Your task to perform on an android device: change notification settings in the gmail app Image 0: 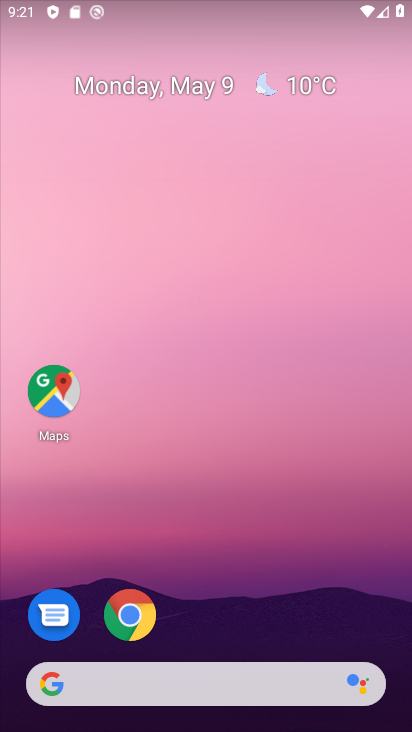
Step 0: drag from (212, 465) to (356, 84)
Your task to perform on an android device: change notification settings in the gmail app Image 1: 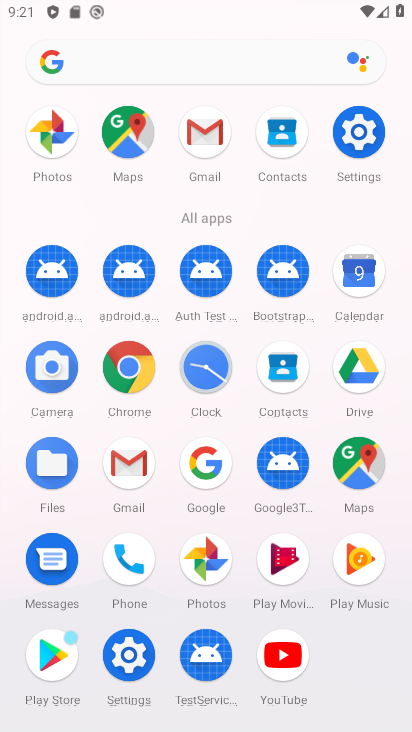
Step 1: drag from (320, 91) to (190, 128)
Your task to perform on an android device: change notification settings in the gmail app Image 2: 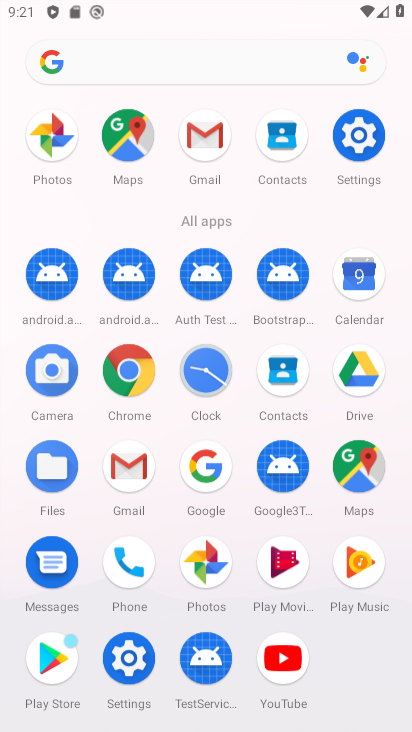
Step 2: click (190, 128)
Your task to perform on an android device: change notification settings in the gmail app Image 3: 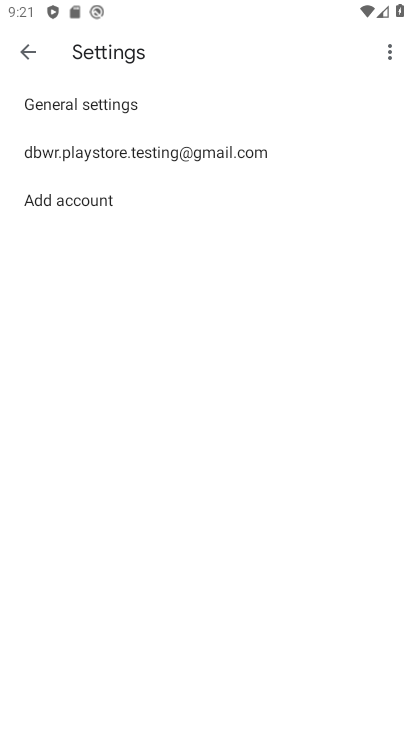
Step 3: click (115, 102)
Your task to perform on an android device: change notification settings in the gmail app Image 4: 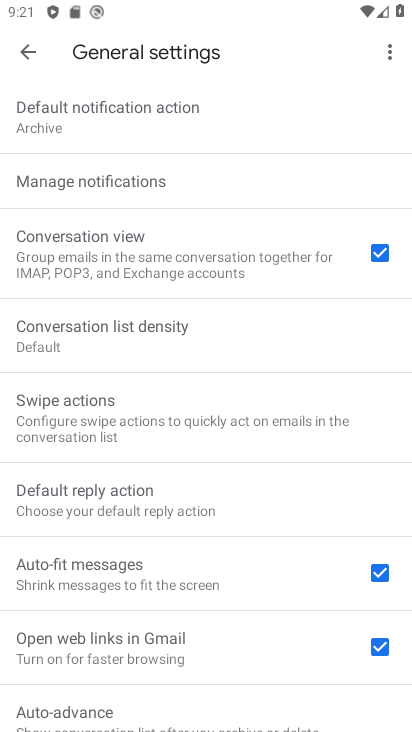
Step 4: click (135, 170)
Your task to perform on an android device: change notification settings in the gmail app Image 5: 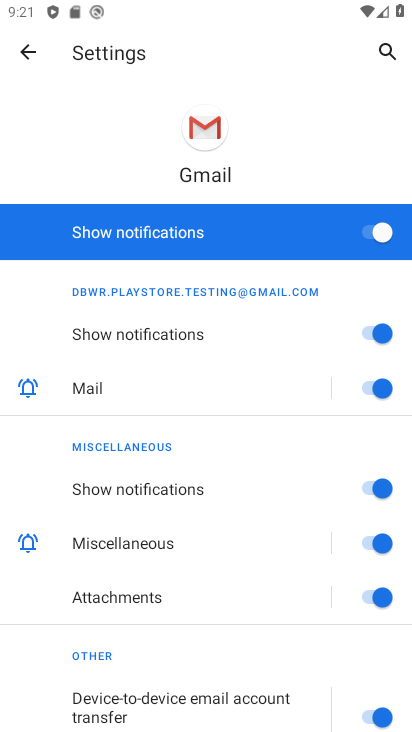
Step 5: click (374, 228)
Your task to perform on an android device: change notification settings in the gmail app Image 6: 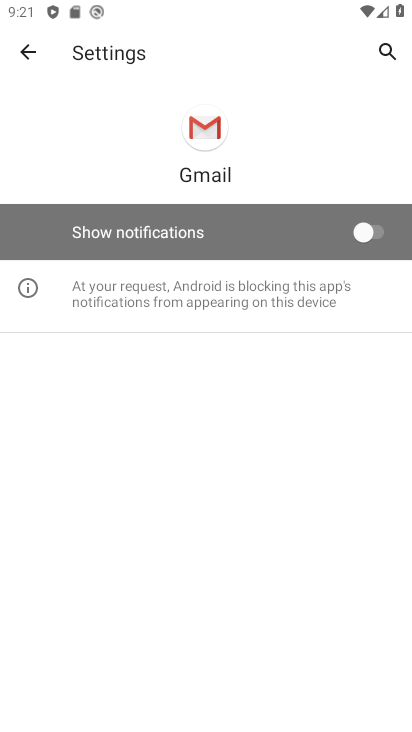
Step 6: task complete